Your task to perform on an android device: all mails in gmail Image 0: 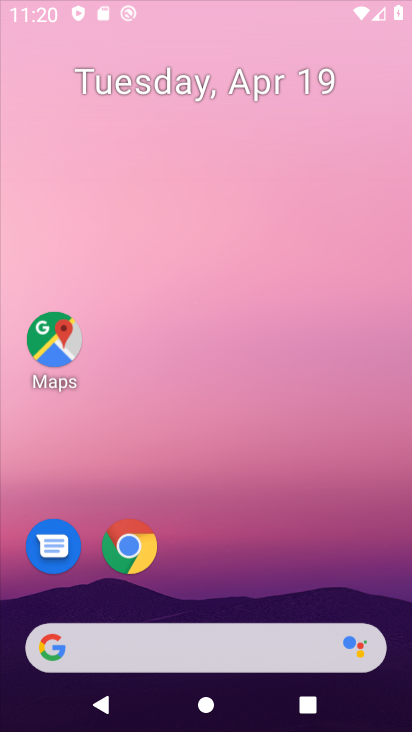
Step 0: drag from (330, 411) to (306, 27)
Your task to perform on an android device: all mails in gmail Image 1: 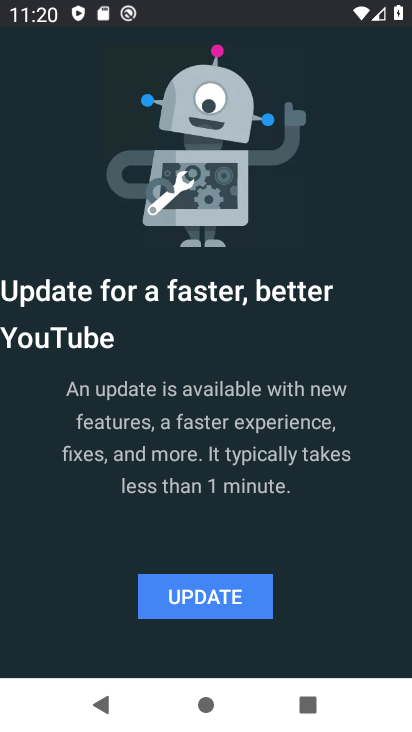
Step 1: press back button
Your task to perform on an android device: all mails in gmail Image 2: 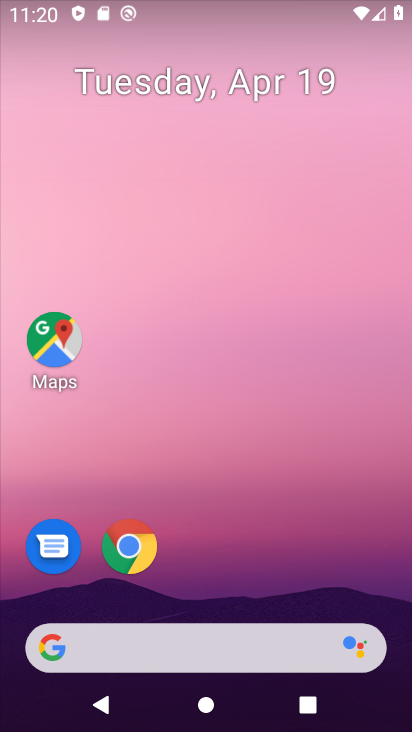
Step 2: drag from (330, 565) to (286, 64)
Your task to perform on an android device: all mails in gmail Image 3: 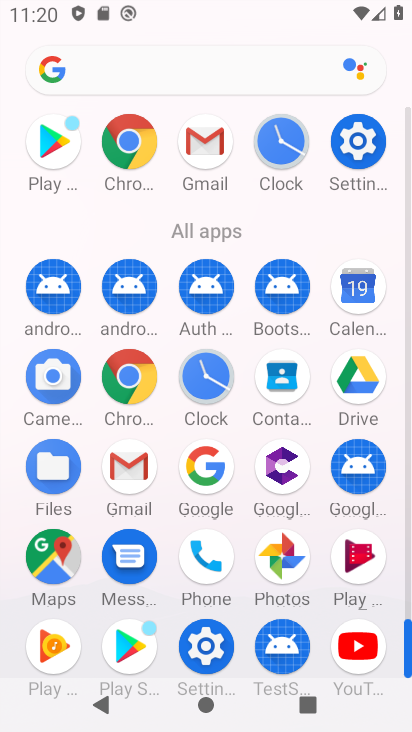
Step 3: click (201, 135)
Your task to perform on an android device: all mails in gmail Image 4: 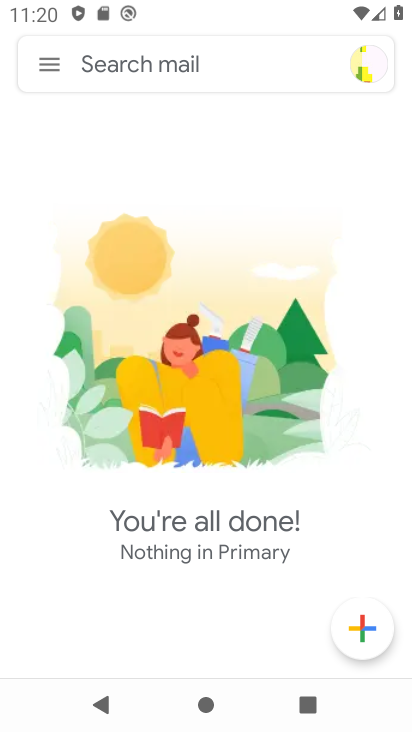
Step 4: click (45, 66)
Your task to perform on an android device: all mails in gmail Image 5: 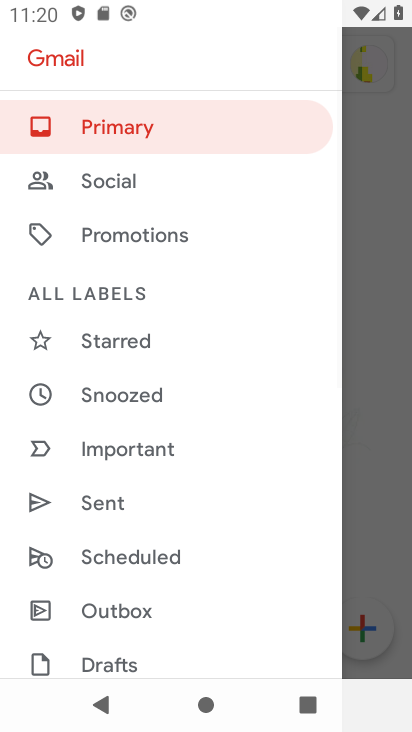
Step 5: drag from (191, 457) to (203, 172)
Your task to perform on an android device: all mails in gmail Image 6: 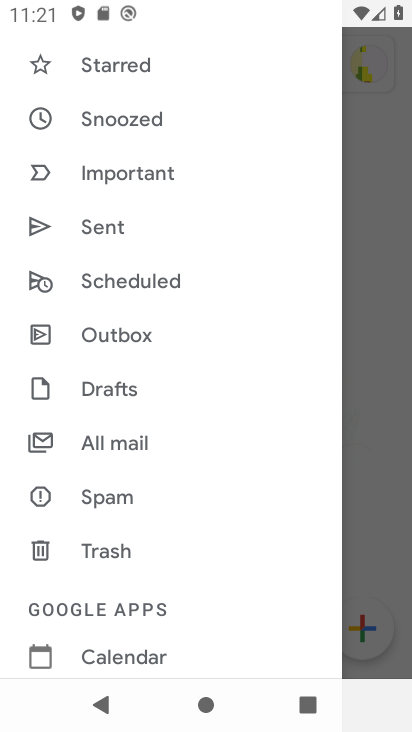
Step 6: click (117, 448)
Your task to perform on an android device: all mails in gmail Image 7: 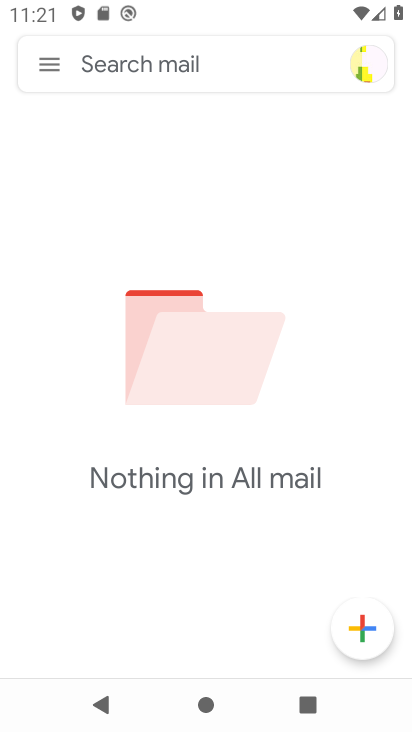
Step 7: task complete